Your task to perform on an android device: create a new album in the google photos Image 0: 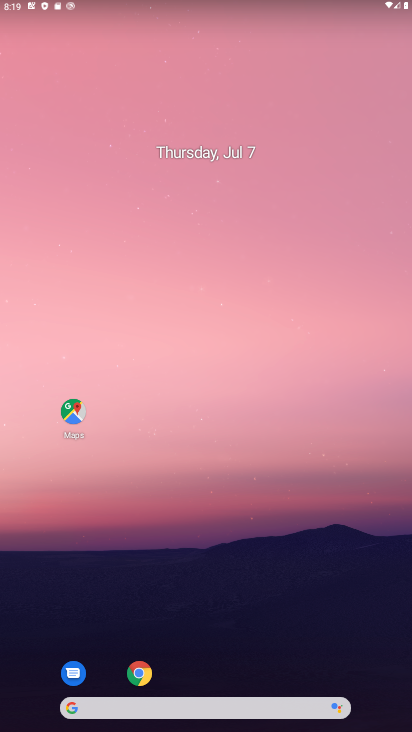
Step 0: press home button
Your task to perform on an android device: create a new album in the google photos Image 1: 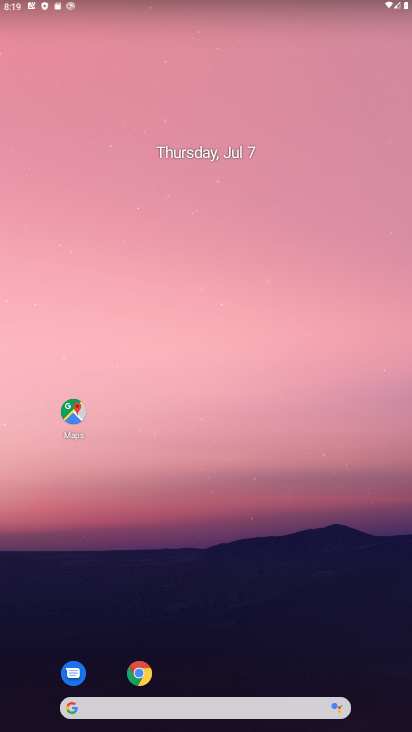
Step 1: drag from (314, 623) to (254, 78)
Your task to perform on an android device: create a new album in the google photos Image 2: 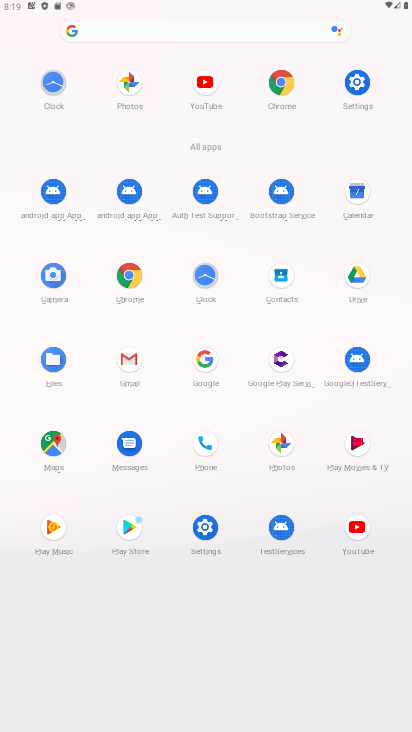
Step 2: click (275, 447)
Your task to perform on an android device: create a new album in the google photos Image 3: 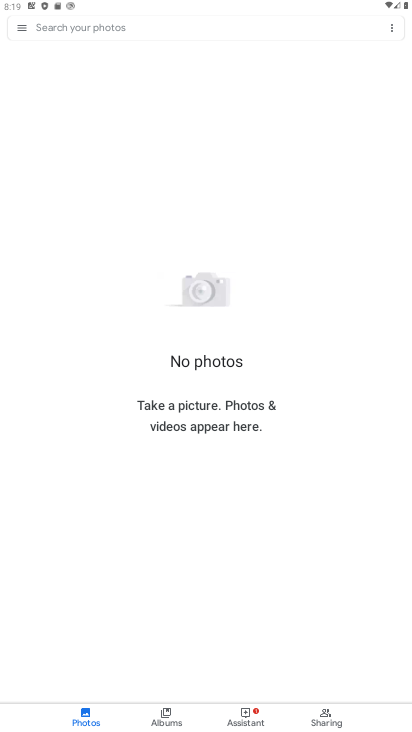
Step 3: task complete